Your task to perform on an android device: clear all cookies in the chrome app Image 0: 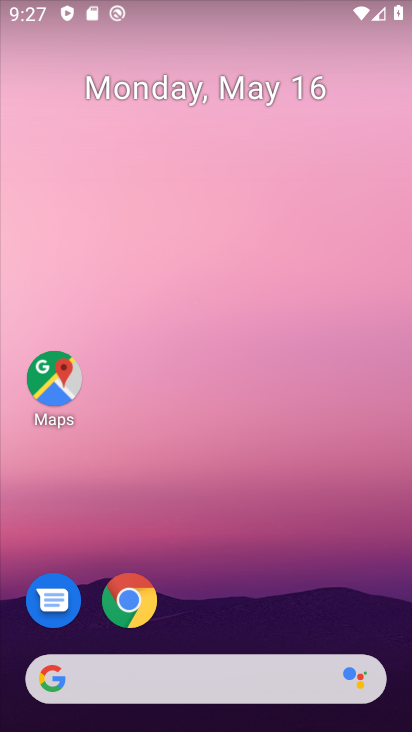
Step 0: click (140, 602)
Your task to perform on an android device: clear all cookies in the chrome app Image 1: 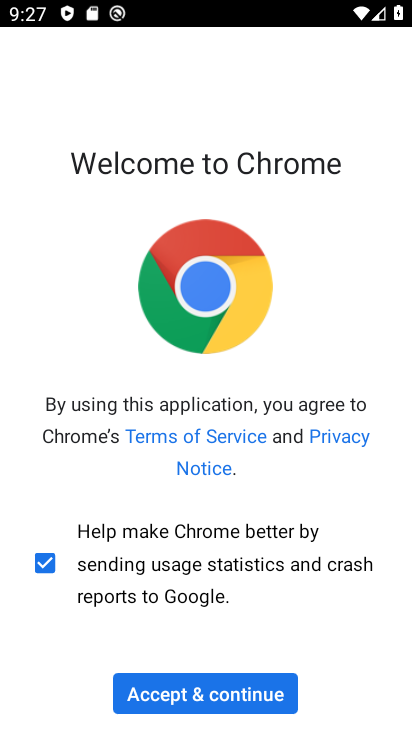
Step 1: click (232, 704)
Your task to perform on an android device: clear all cookies in the chrome app Image 2: 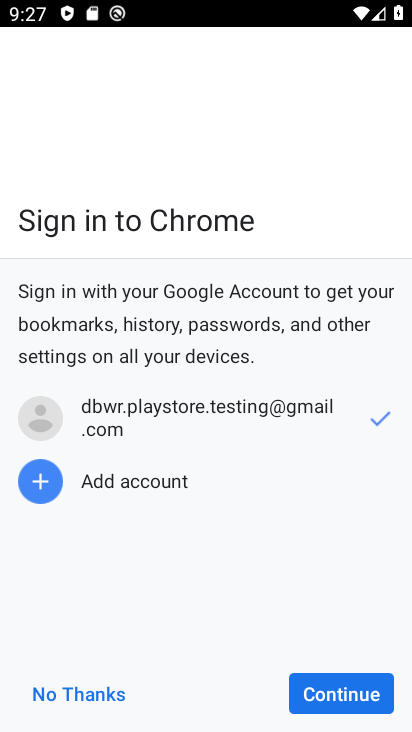
Step 2: click (320, 679)
Your task to perform on an android device: clear all cookies in the chrome app Image 3: 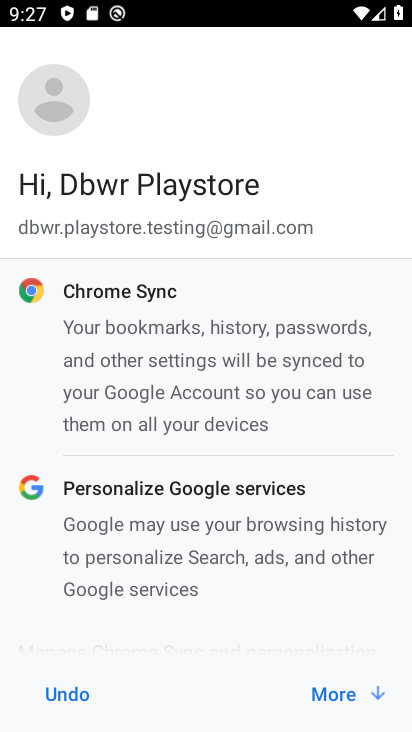
Step 3: click (342, 679)
Your task to perform on an android device: clear all cookies in the chrome app Image 4: 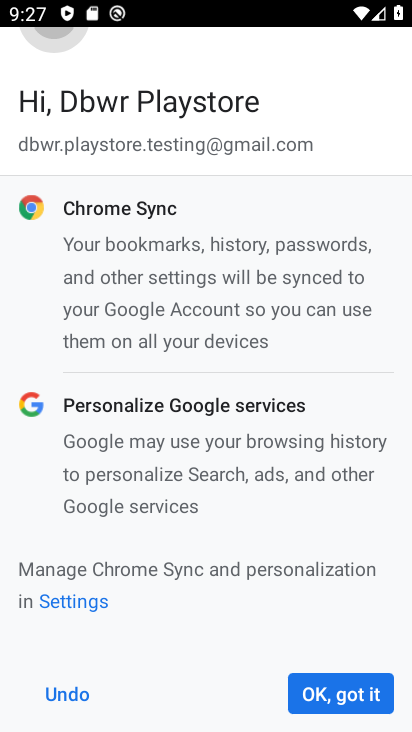
Step 4: click (368, 690)
Your task to perform on an android device: clear all cookies in the chrome app Image 5: 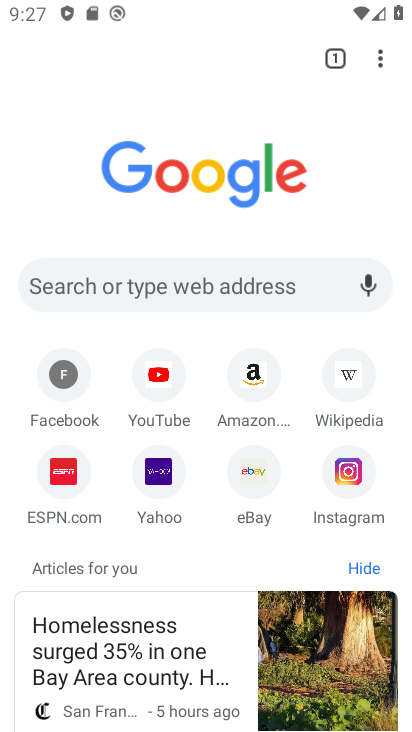
Step 5: click (377, 56)
Your task to perform on an android device: clear all cookies in the chrome app Image 6: 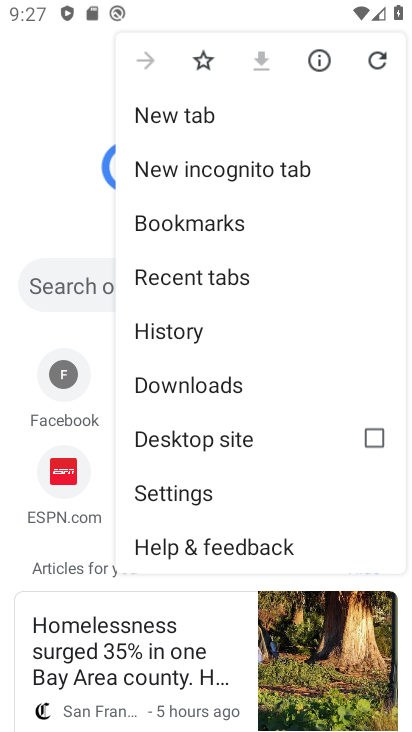
Step 6: click (194, 338)
Your task to perform on an android device: clear all cookies in the chrome app Image 7: 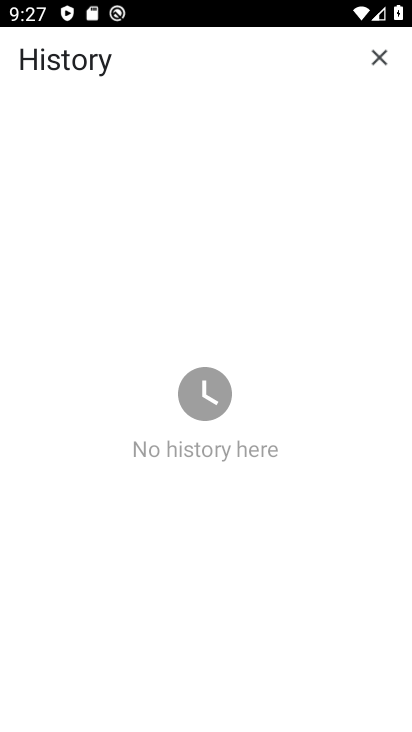
Step 7: task complete